Your task to perform on an android device: turn off airplane mode Image 0: 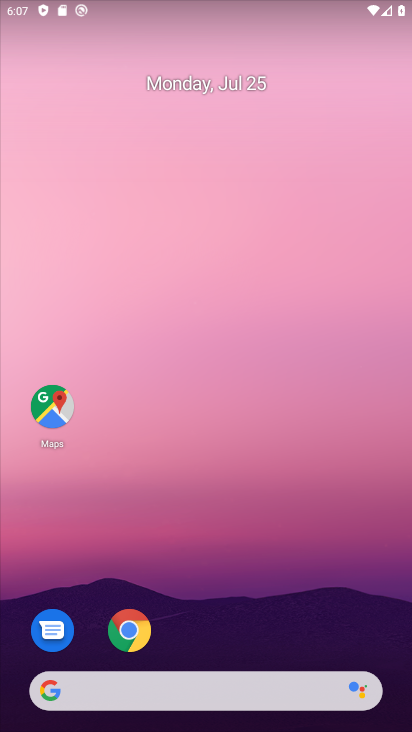
Step 0: drag from (182, 699) to (189, 126)
Your task to perform on an android device: turn off airplane mode Image 1: 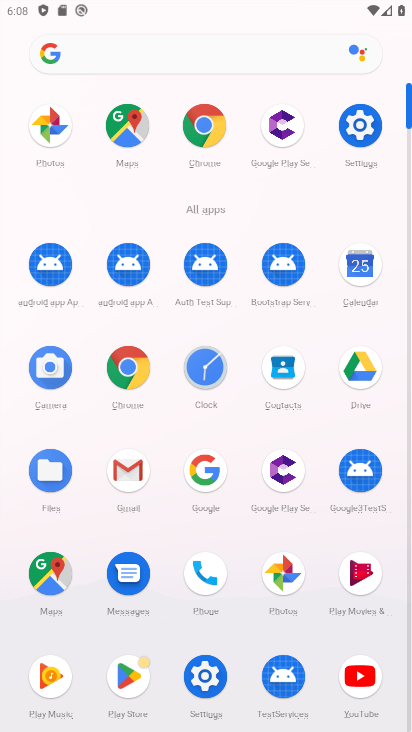
Step 1: click (360, 123)
Your task to perform on an android device: turn off airplane mode Image 2: 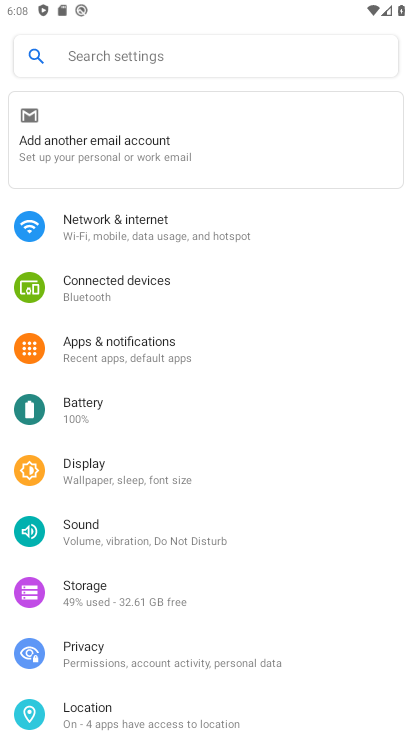
Step 2: click (172, 231)
Your task to perform on an android device: turn off airplane mode Image 3: 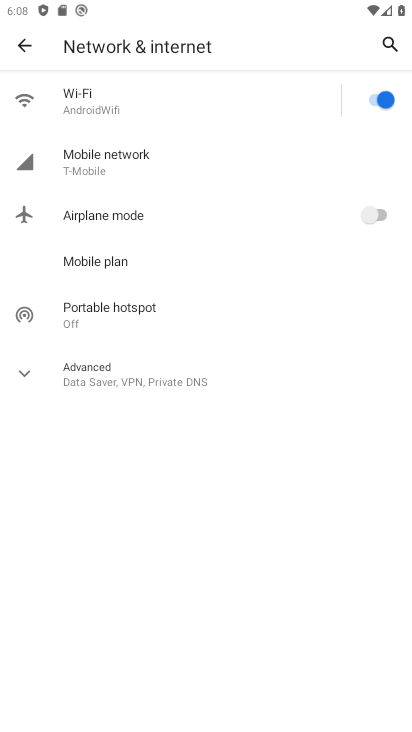
Step 3: task complete